Your task to perform on an android device: What's the weather today? Image 0: 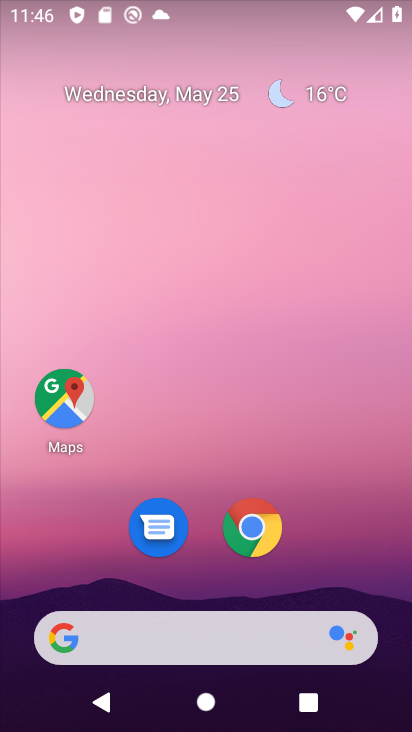
Step 0: drag from (33, 723) to (335, 723)
Your task to perform on an android device: What's the weather today? Image 1: 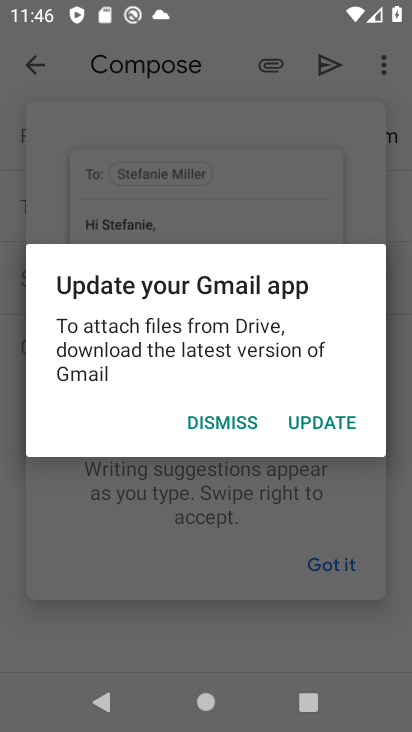
Step 1: press home button
Your task to perform on an android device: What's the weather today? Image 2: 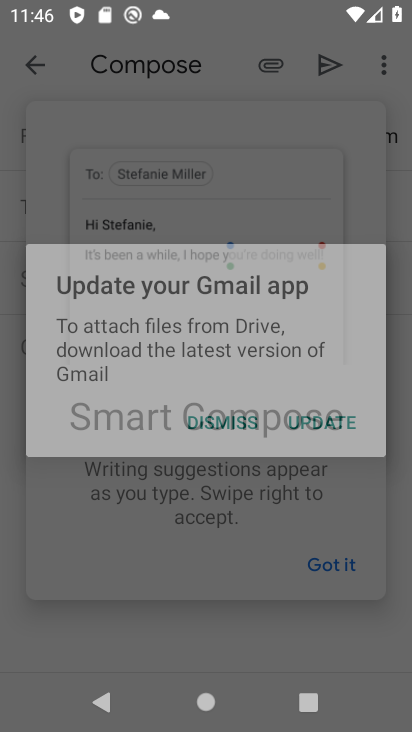
Step 2: press home button
Your task to perform on an android device: What's the weather today? Image 3: 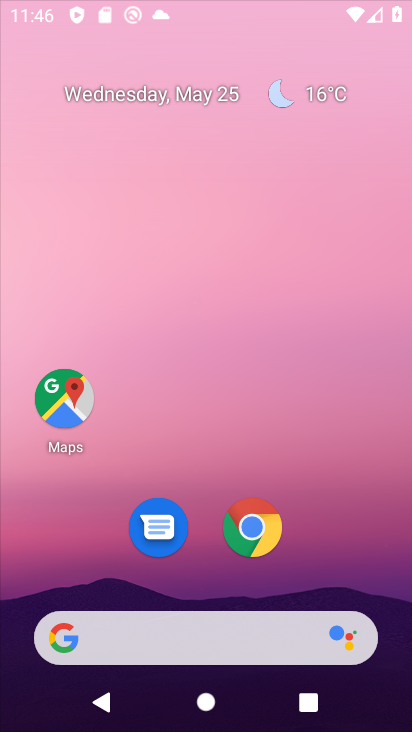
Step 3: press home button
Your task to perform on an android device: What's the weather today? Image 4: 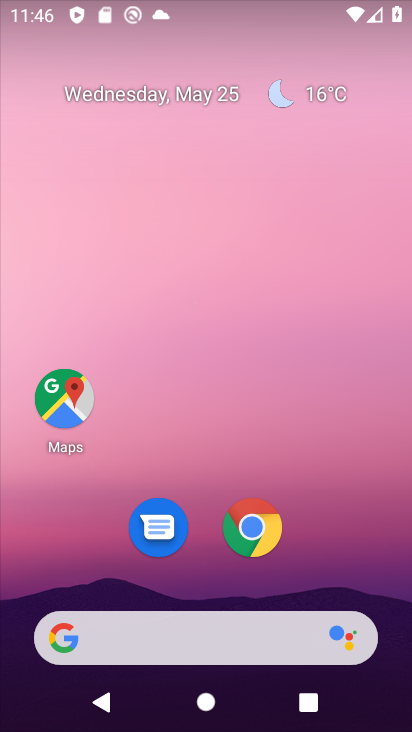
Step 4: drag from (372, 544) to (389, 143)
Your task to perform on an android device: What's the weather today? Image 5: 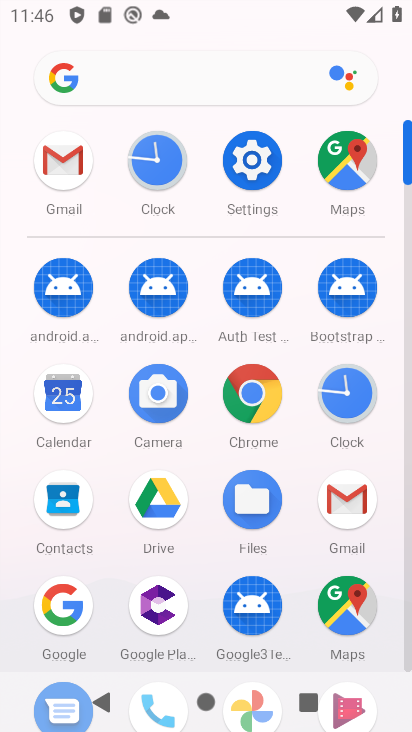
Step 5: press home button
Your task to perform on an android device: What's the weather today? Image 6: 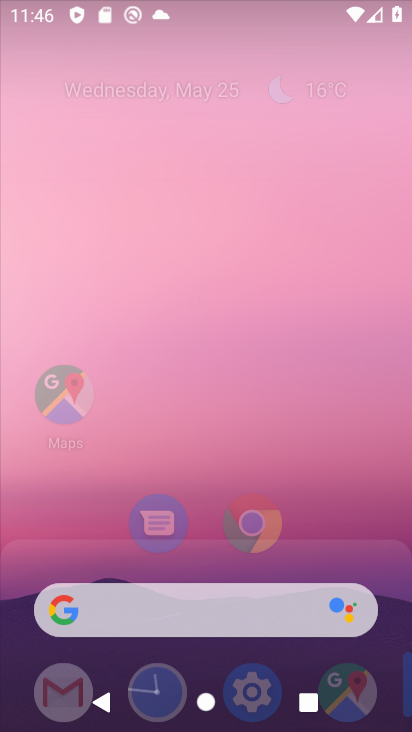
Step 6: press home button
Your task to perform on an android device: What's the weather today? Image 7: 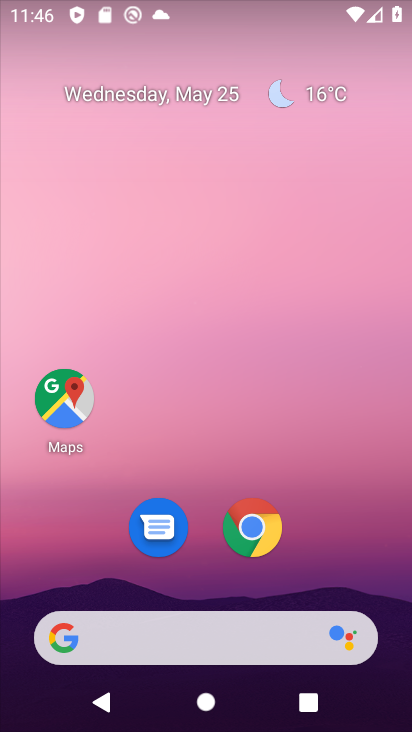
Step 7: click (269, 528)
Your task to perform on an android device: What's the weather today? Image 8: 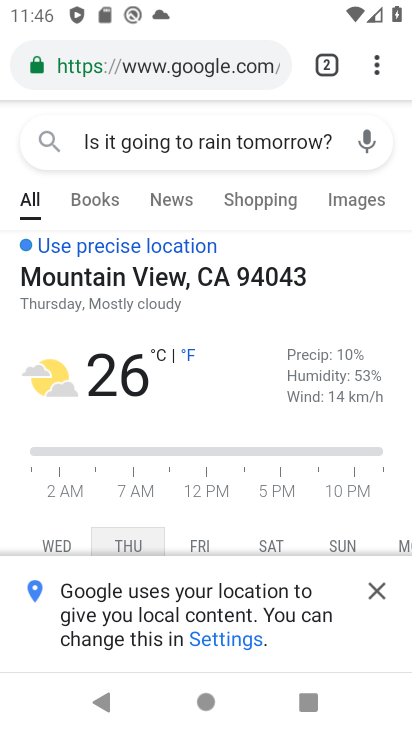
Step 8: click (252, 62)
Your task to perform on an android device: What's the weather today? Image 9: 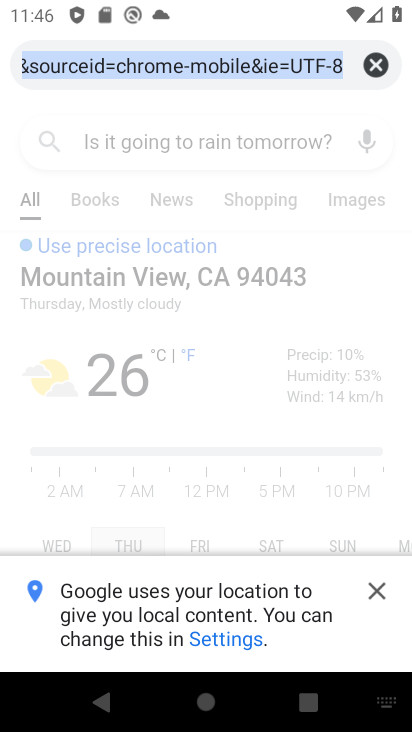
Step 9: click (373, 62)
Your task to perform on an android device: What's the weather today? Image 10: 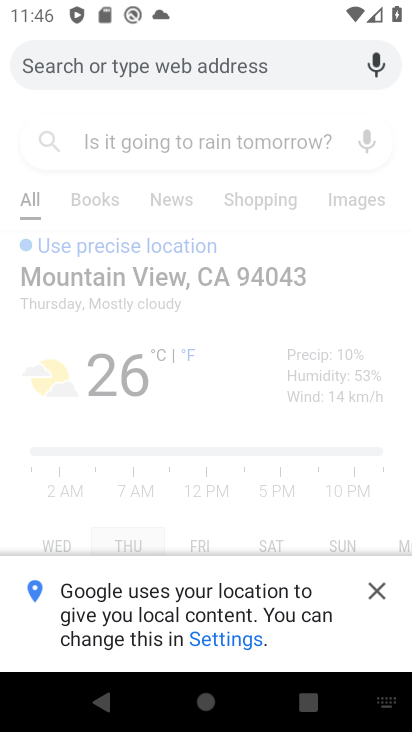
Step 10: type "What's the weather today?"
Your task to perform on an android device: What's the weather today? Image 11: 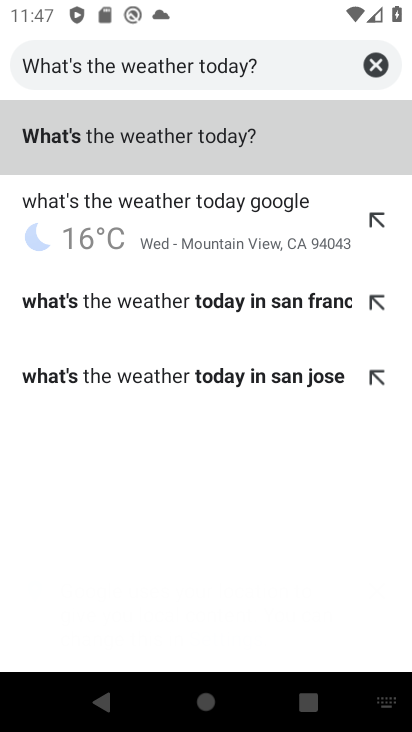
Step 11: click (226, 120)
Your task to perform on an android device: What's the weather today? Image 12: 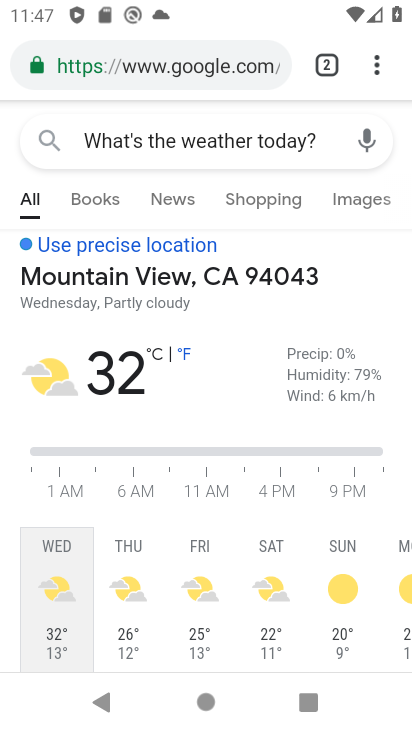
Step 12: task complete